Your task to perform on an android device: Go to CNN.com Image 0: 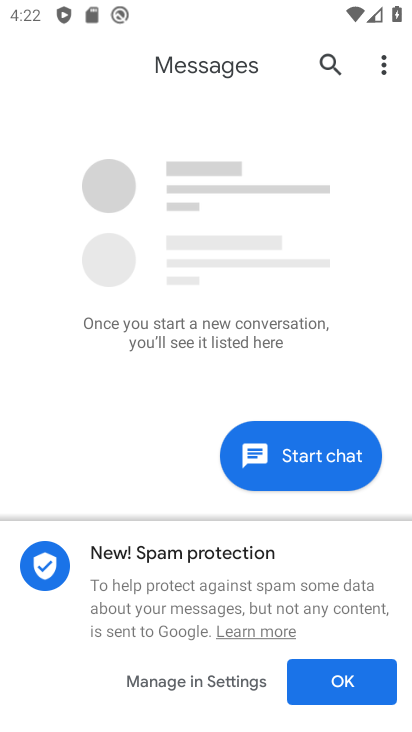
Step 0: click (350, 679)
Your task to perform on an android device: Go to CNN.com Image 1: 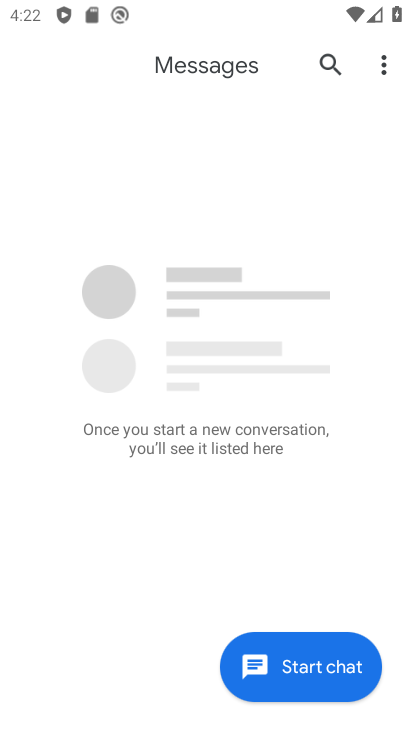
Step 1: press back button
Your task to perform on an android device: Go to CNN.com Image 2: 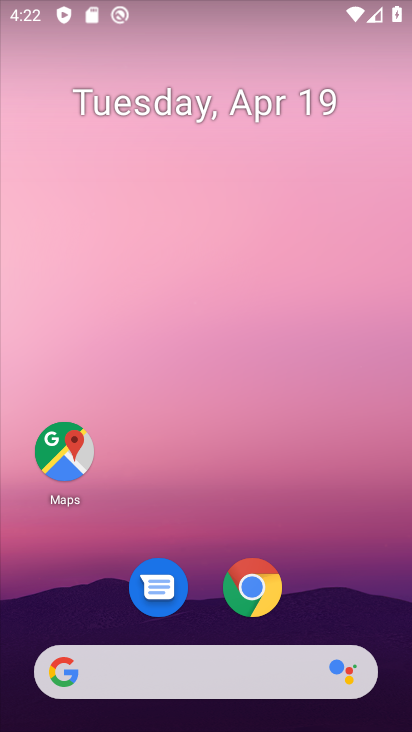
Step 2: click (253, 581)
Your task to perform on an android device: Go to CNN.com Image 3: 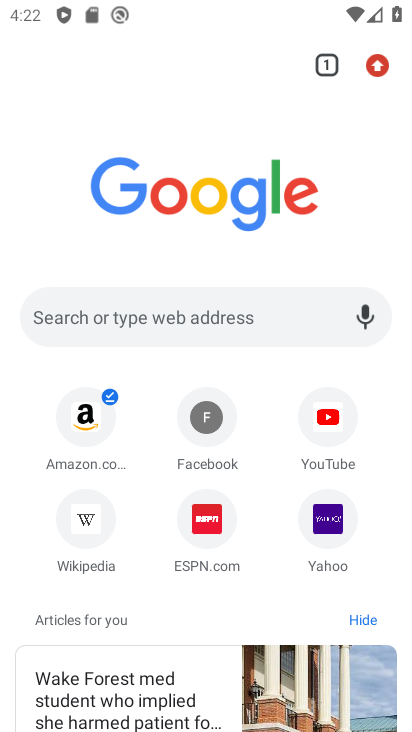
Step 3: click (205, 306)
Your task to perform on an android device: Go to CNN.com Image 4: 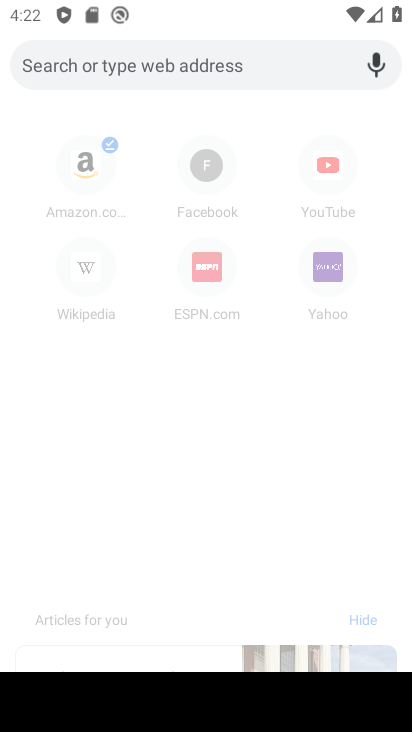
Step 4: type "CNN.com"
Your task to perform on an android device: Go to CNN.com Image 5: 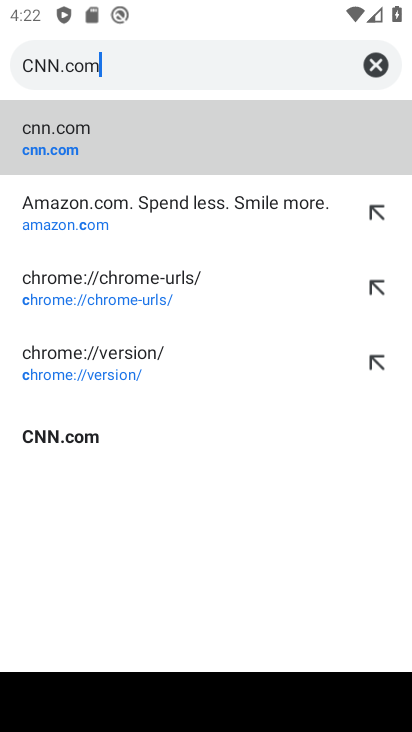
Step 5: type ""
Your task to perform on an android device: Go to CNN.com Image 6: 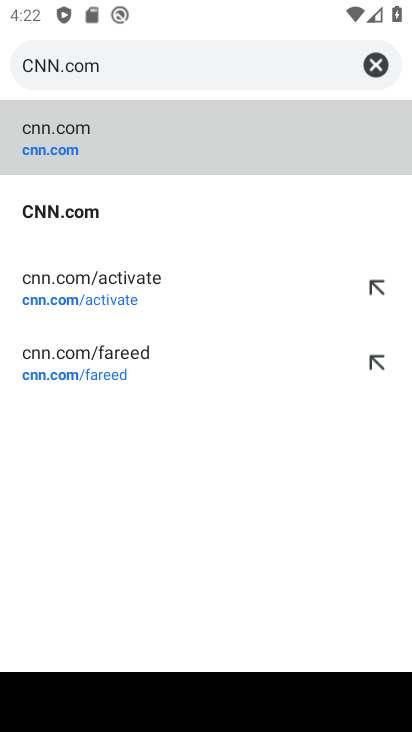
Step 6: click (121, 121)
Your task to perform on an android device: Go to CNN.com Image 7: 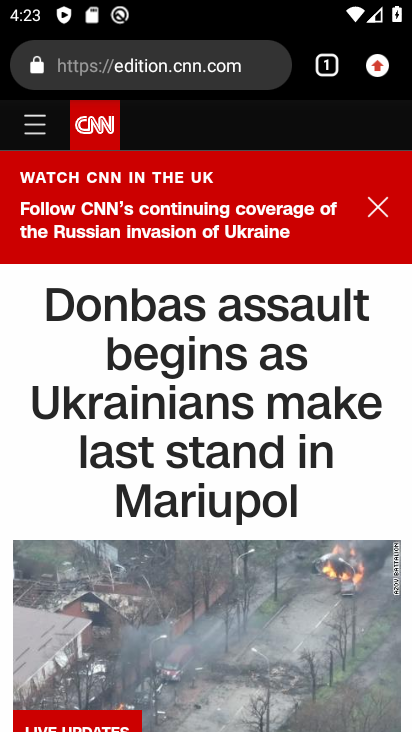
Step 7: task complete